Your task to perform on an android device: refresh tabs in the chrome app Image 0: 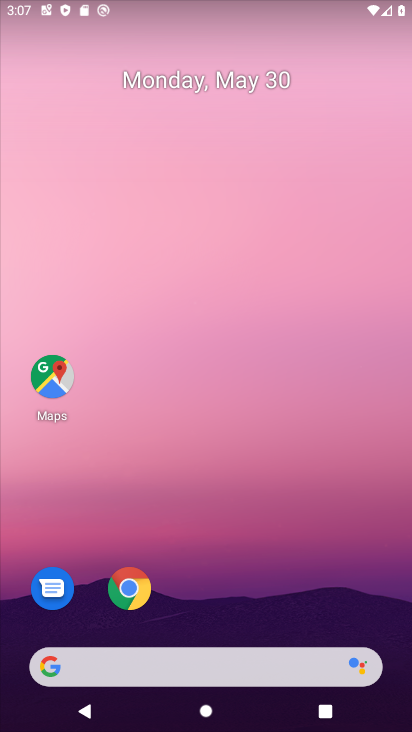
Step 0: drag from (252, 519) to (218, 3)
Your task to perform on an android device: refresh tabs in the chrome app Image 1: 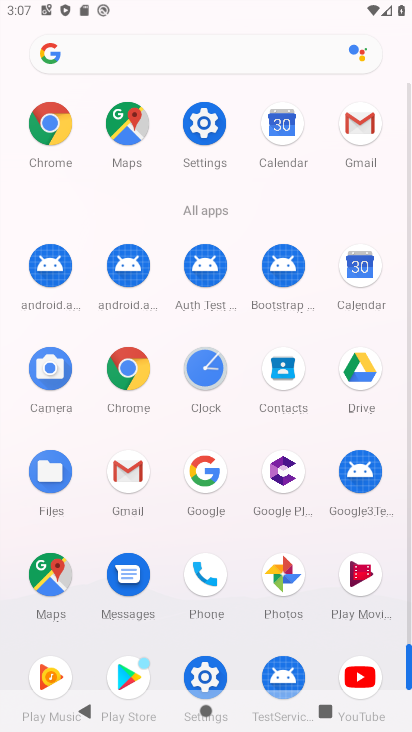
Step 1: drag from (10, 561) to (20, 272)
Your task to perform on an android device: refresh tabs in the chrome app Image 2: 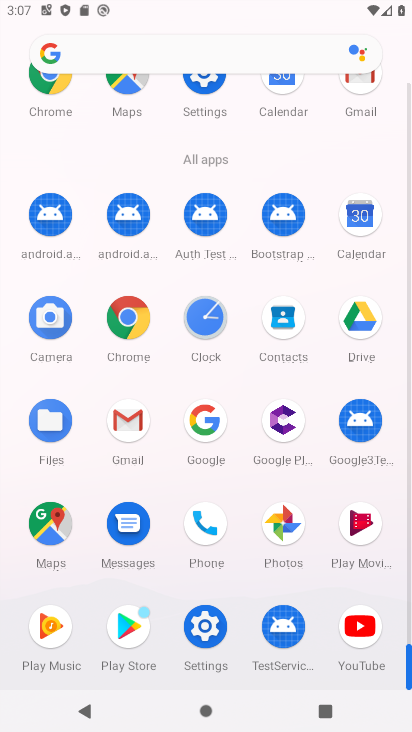
Step 2: click (126, 317)
Your task to perform on an android device: refresh tabs in the chrome app Image 3: 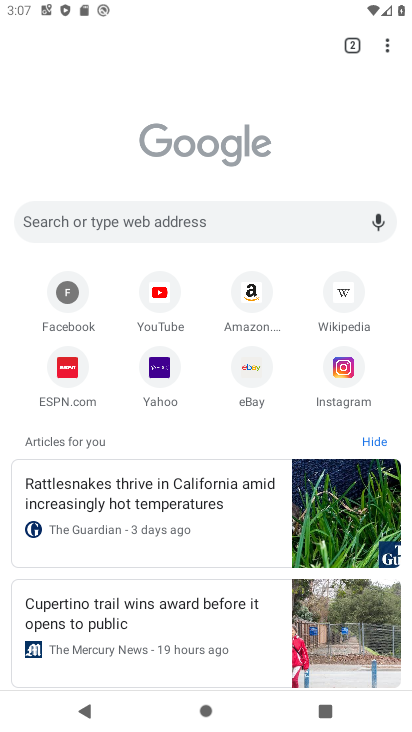
Step 3: click (385, 42)
Your task to perform on an android device: refresh tabs in the chrome app Image 4: 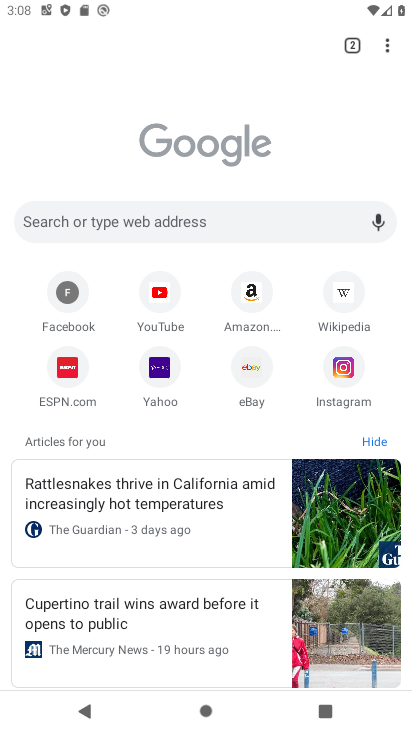
Step 4: task complete